Your task to perform on an android device: open a bookmark in the chrome app Image 0: 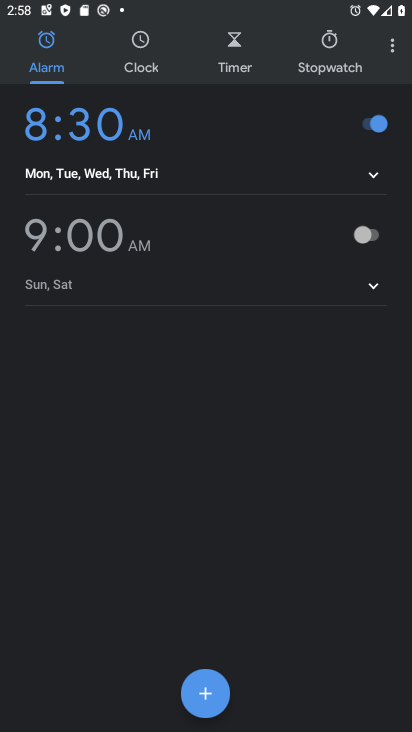
Step 0: press home button
Your task to perform on an android device: open a bookmark in the chrome app Image 1: 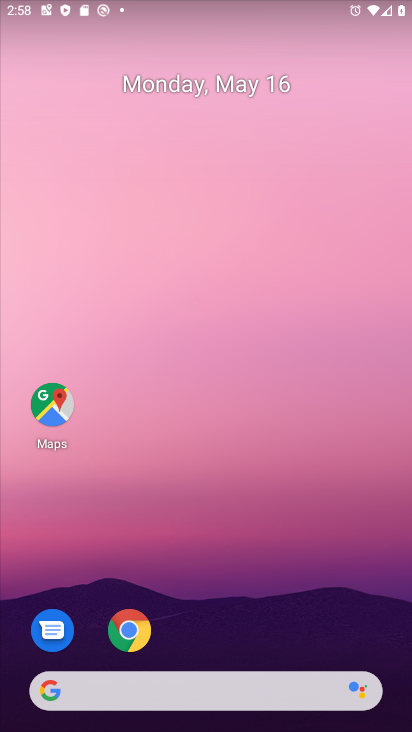
Step 1: click (137, 627)
Your task to perform on an android device: open a bookmark in the chrome app Image 2: 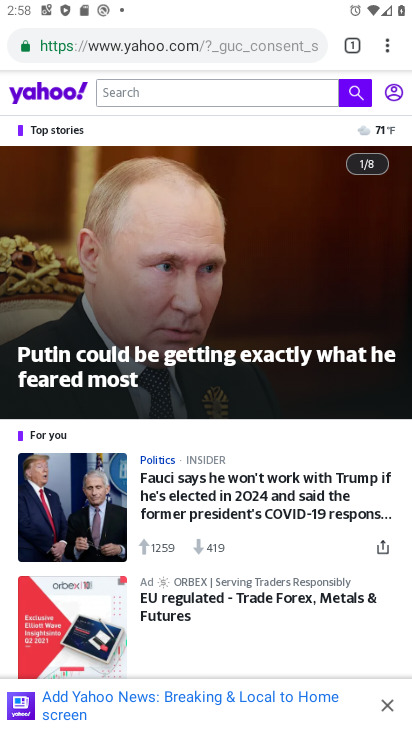
Step 2: click (390, 35)
Your task to perform on an android device: open a bookmark in the chrome app Image 3: 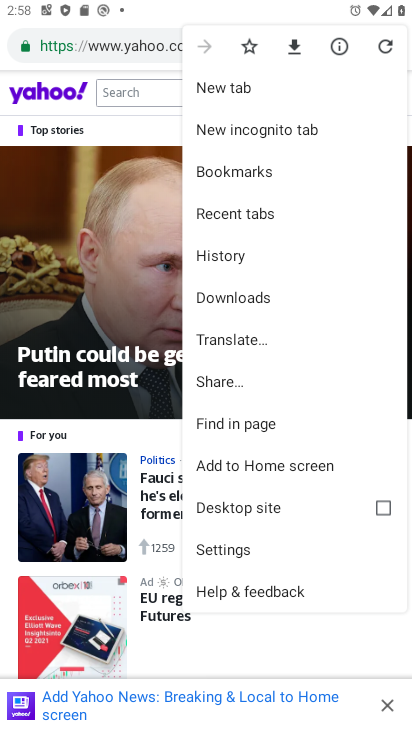
Step 3: click (263, 167)
Your task to perform on an android device: open a bookmark in the chrome app Image 4: 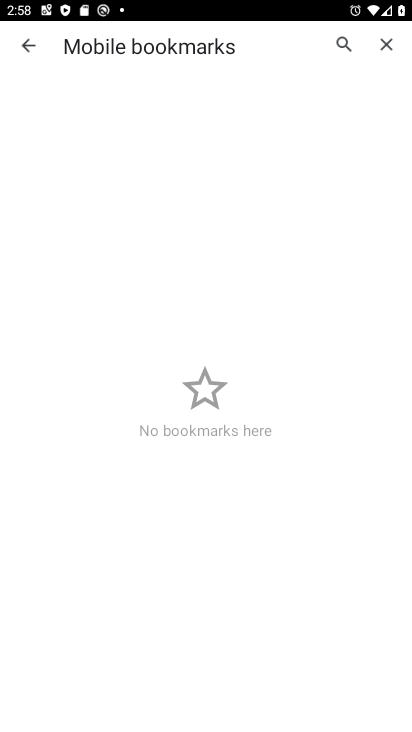
Step 4: task complete